Your task to perform on an android device: turn pop-ups off in chrome Image 0: 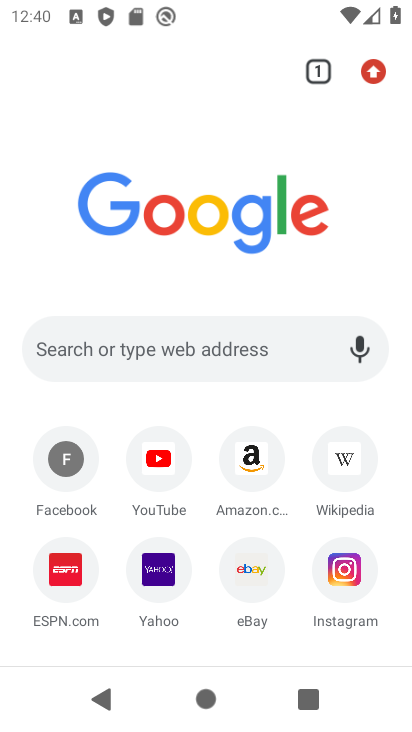
Step 0: click (370, 68)
Your task to perform on an android device: turn pop-ups off in chrome Image 1: 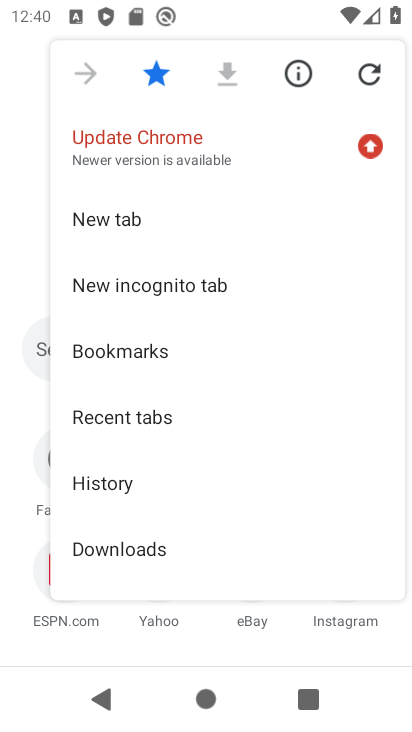
Step 1: drag from (204, 533) to (221, 137)
Your task to perform on an android device: turn pop-ups off in chrome Image 2: 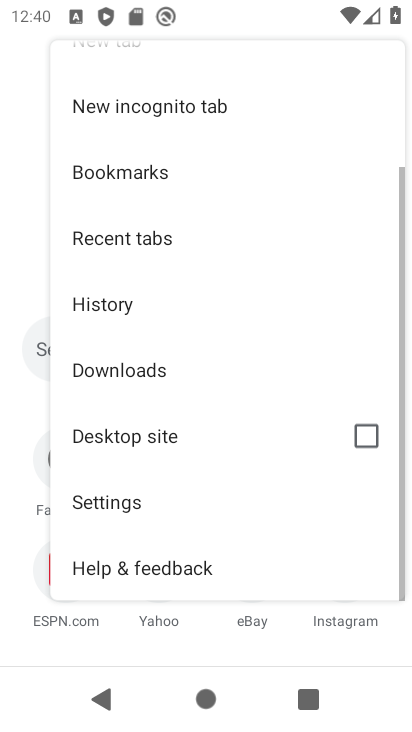
Step 2: click (183, 503)
Your task to perform on an android device: turn pop-ups off in chrome Image 3: 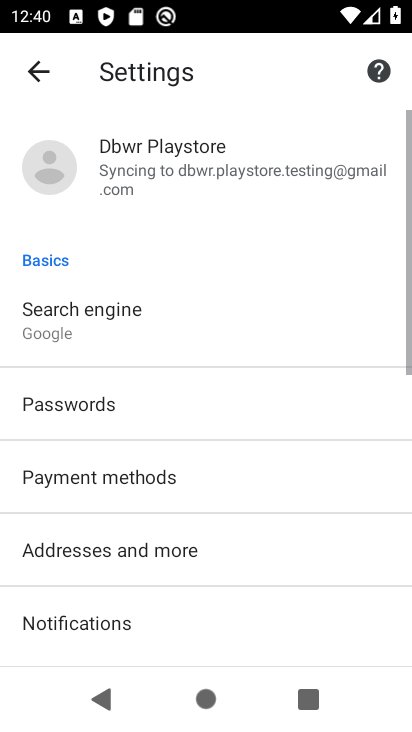
Step 3: drag from (219, 503) to (222, 108)
Your task to perform on an android device: turn pop-ups off in chrome Image 4: 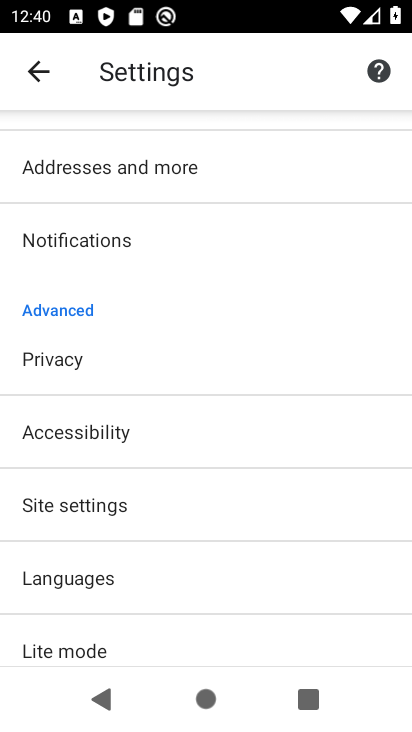
Step 4: click (168, 519)
Your task to perform on an android device: turn pop-ups off in chrome Image 5: 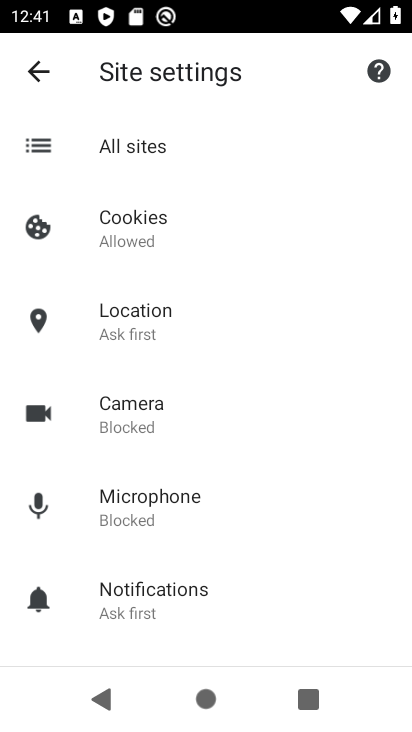
Step 5: drag from (281, 596) to (273, 127)
Your task to perform on an android device: turn pop-ups off in chrome Image 6: 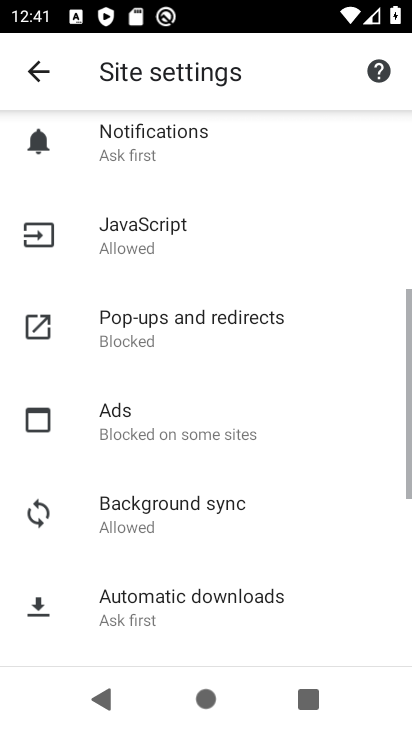
Step 6: click (230, 335)
Your task to perform on an android device: turn pop-ups off in chrome Image 7: 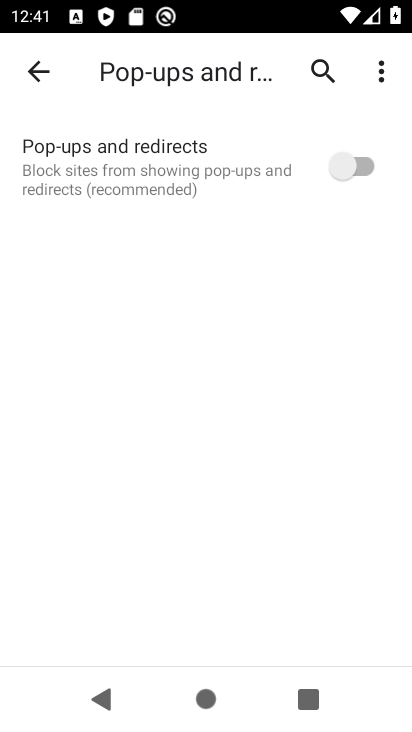
Step 7: task complete